Your task to perform on an android device: find photos in the google photos app Image 0: 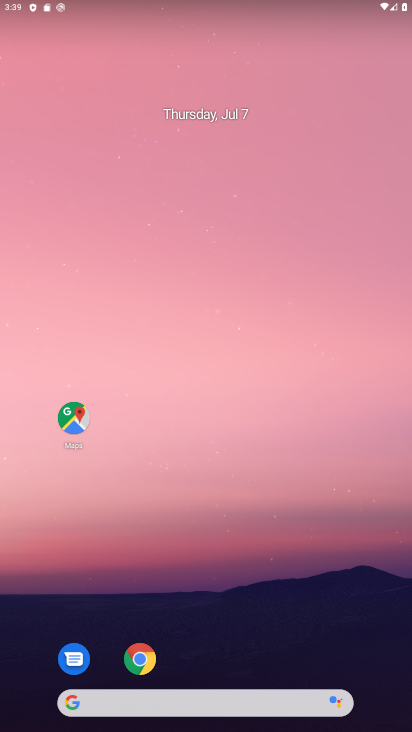
Step 0: drag from (213, 618) to (205, 346)
Your task to perform on an android device: find photos in the google photos app Image 1: 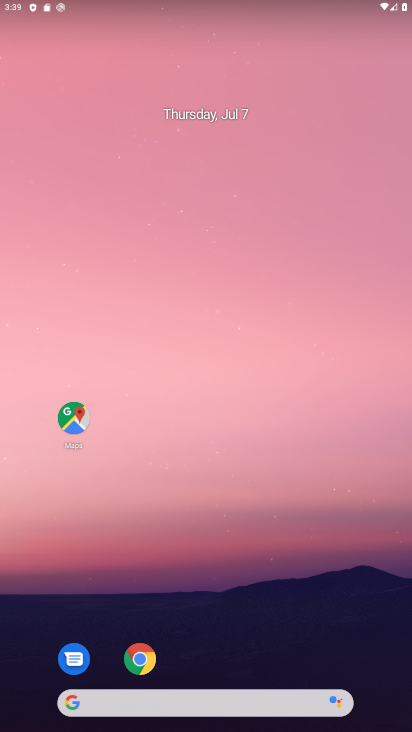
Step 1: drag from (189, 654) to (287, 146)
Your task to perform on an android device: find photos in the google photos app Image 2: 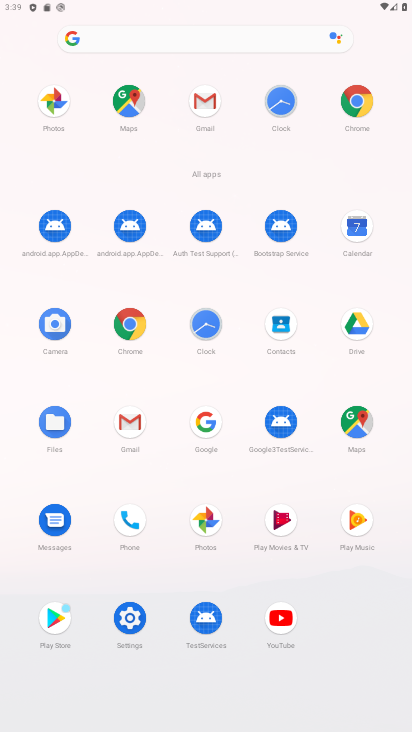
Step 2: click (198, 519)
Your task to perform on an android device: find photos in the google photos app Image 3: 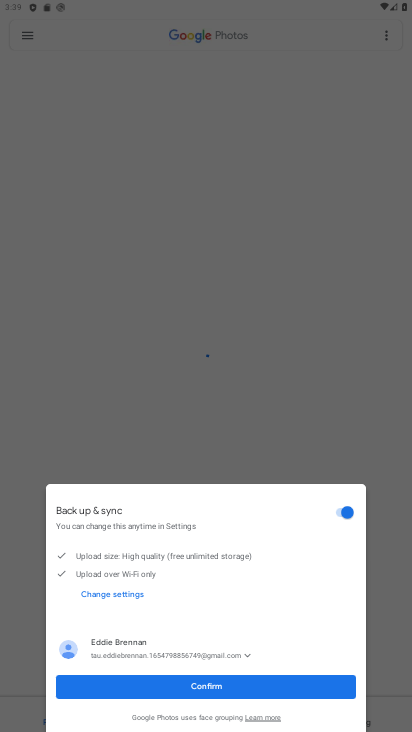
Step 3: click (222, 686)
Your task to perform on an android device: find photos in the google photos app Image 4: 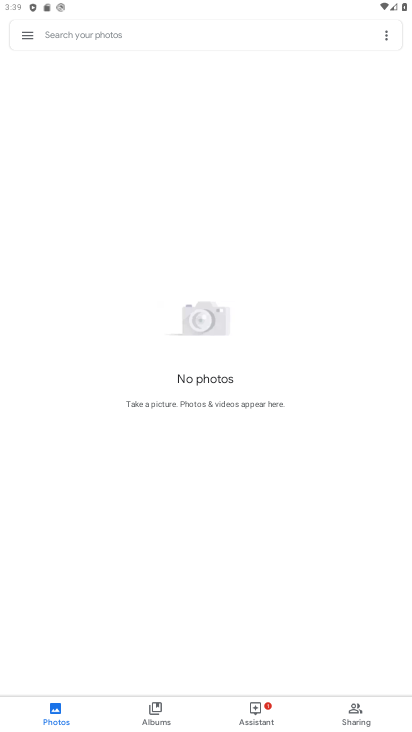
Step 4: task complete